Your task to perform on an android device: Open Reddit.com Image 0: 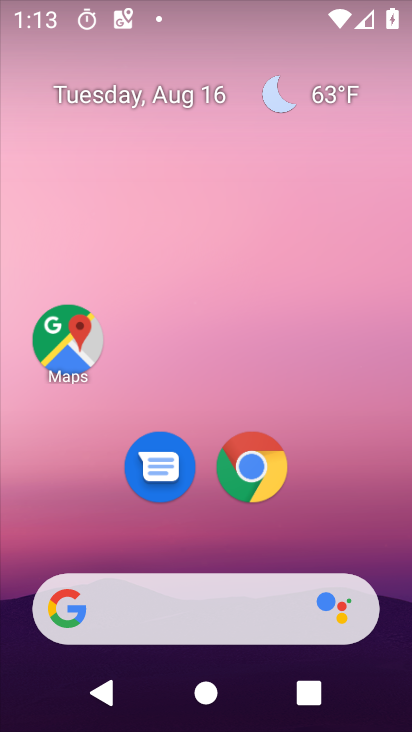
Step 0: press home button
Your task to perform on an android device: Open Reddit.com Image 1: 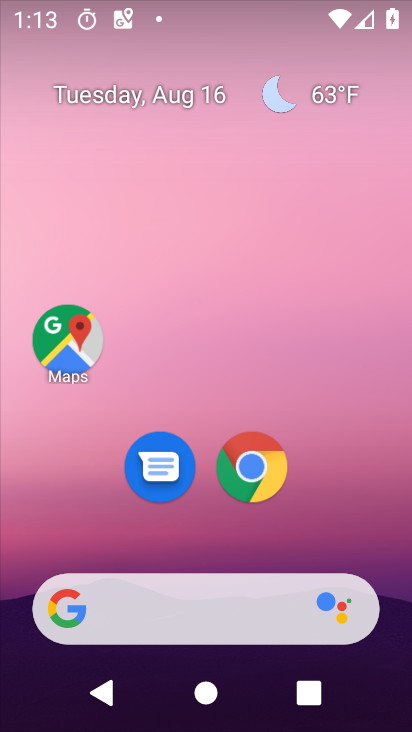
Step 1: drag from (364, 559) to (390, 166)
Your task to perform on an android device: Open Reddit.com Image 2: 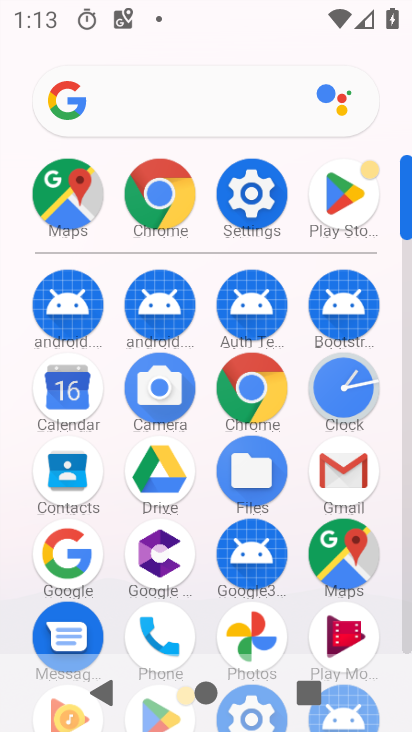
Step 2: click (249, 394)
Your task to perform on an android device: Open Reddit.com Image 3: 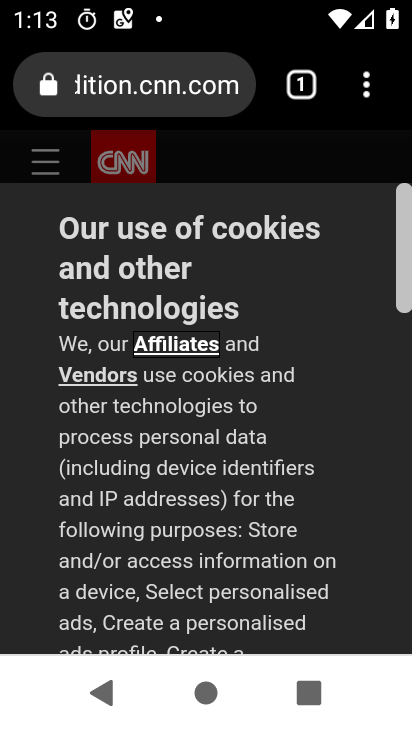
Step 3: click (218, 91)
Your task to perform on an android device: Open Reddit.com Image 4: 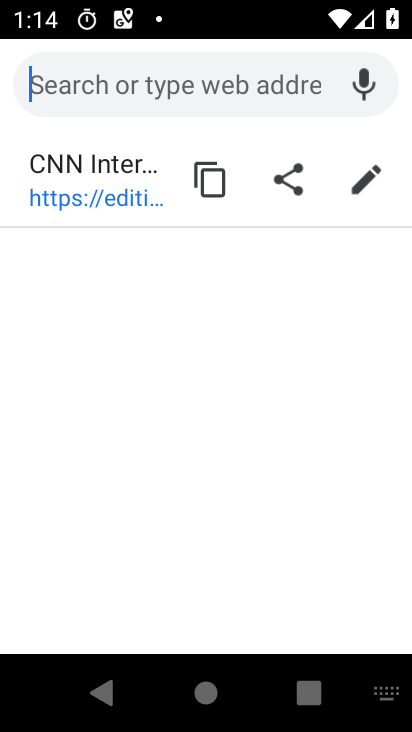
Step 4: press enter
Your task to perform on an android device: Open Reddit.com Image 5: 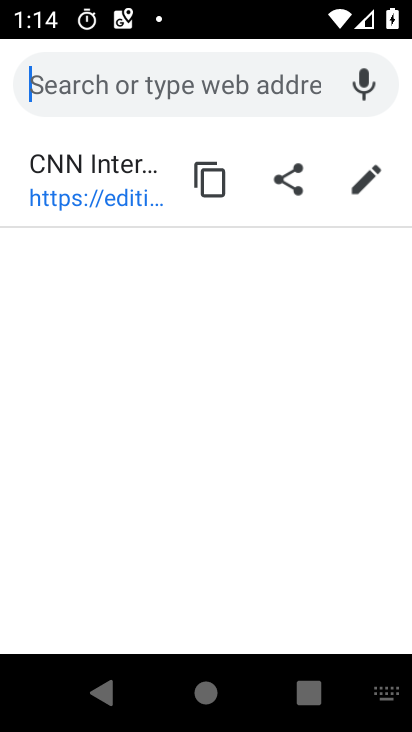
Step 5: type "reddit.com"
Your task to perform on an android device: Open Reddit.com Image 6: 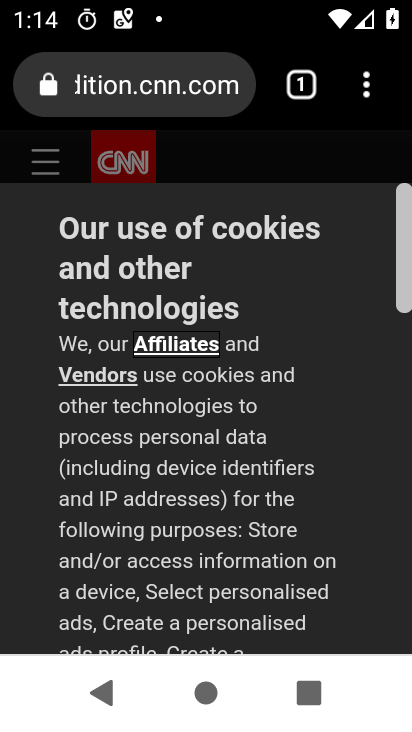
Step 6: click (121, 87)
Your task to perform on an android device: Open Reddit.com Image 7: 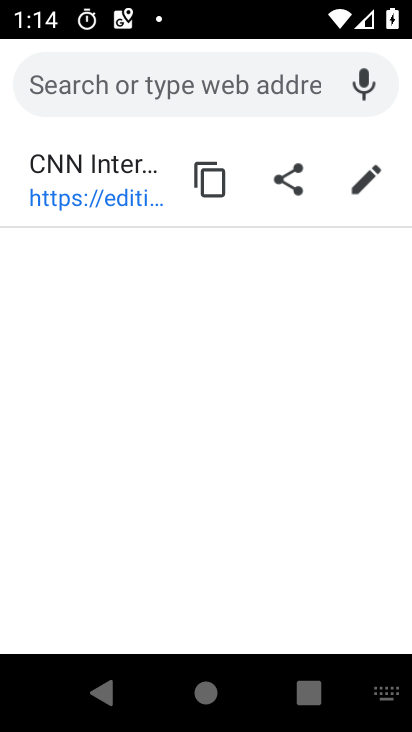
Step 7: type "reddit.com"
Your task to perform on an android device: Open Reddit.com Image 8: 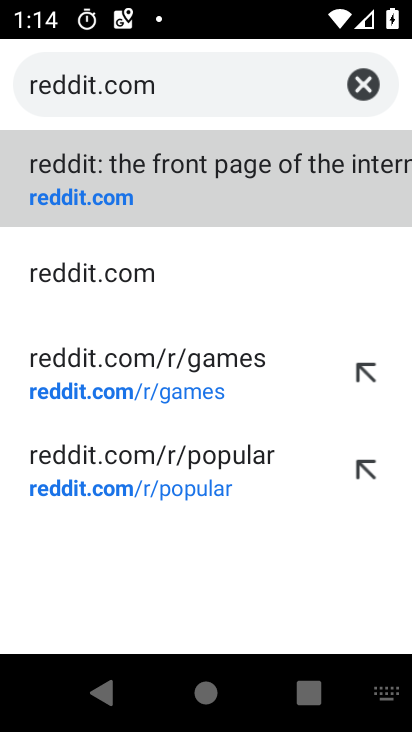
Step 8: click (116, 198)
Your task to perform on an android device: Open Reddit.com Image 9: 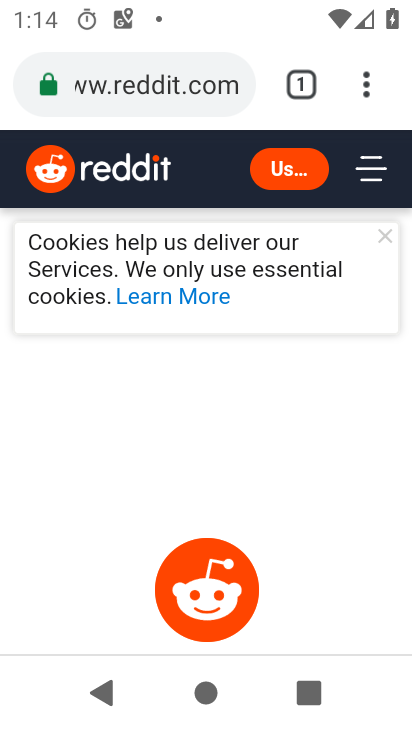
Step 9: task complete